Your task to perform on an android device: turn off notifications in google photos Image 0: 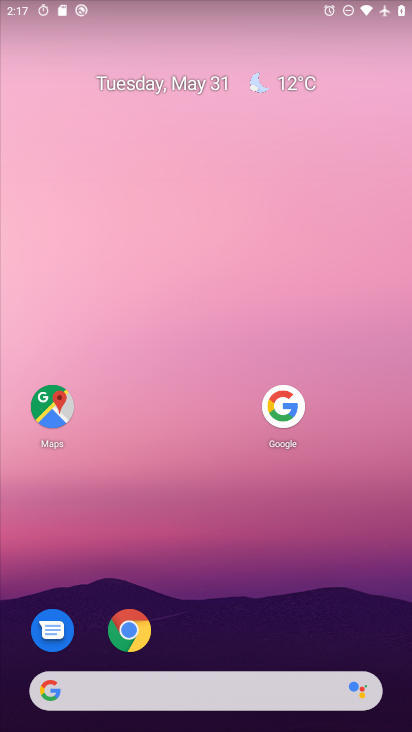
Step 0: press home button
Your task to perform on an android device: turn off notifications in google photos Image 1: 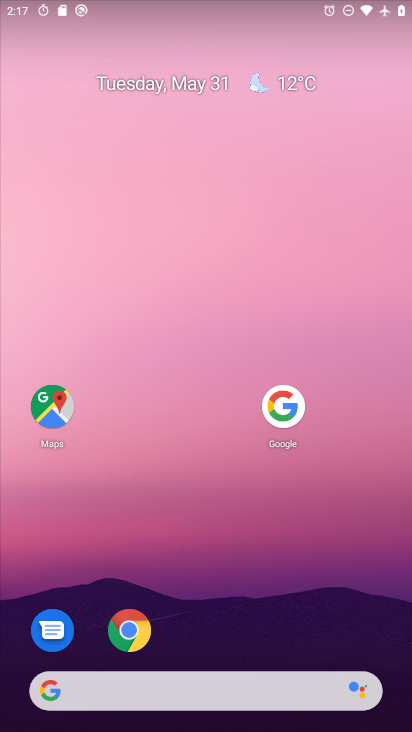
Step 1: drag from (116, 696) to (294, 64)
Your task to perform on an android device: turn off notifications in google photos Image 2: 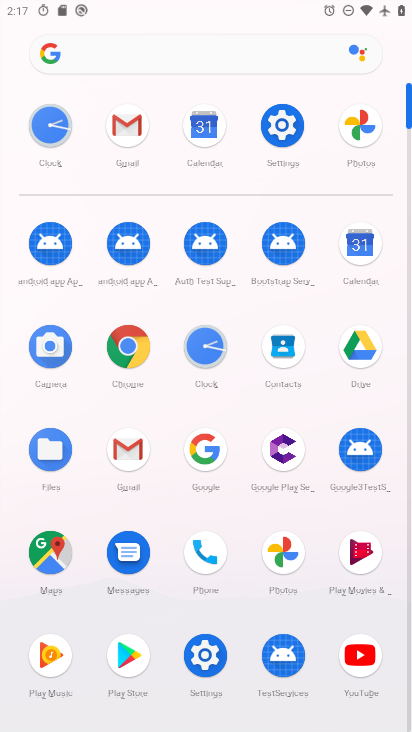
Step 2: click (355, 128)
Your task to perform on an android device: turn off notifications in google photos Image 3: 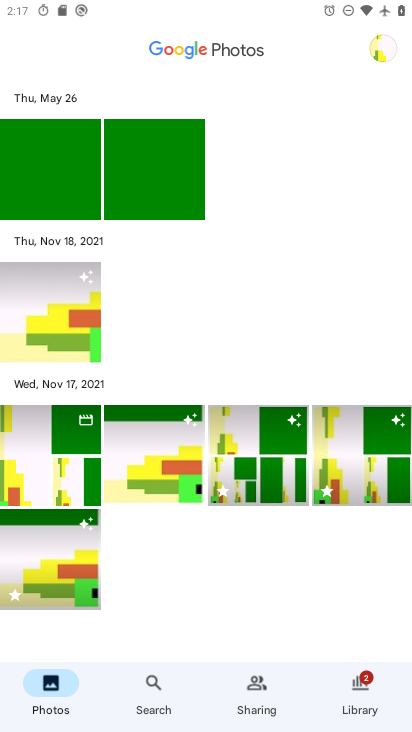
Step 3: click (377, 41)
Your task to perform on an android device: turn off notifications in google photos Image 4: 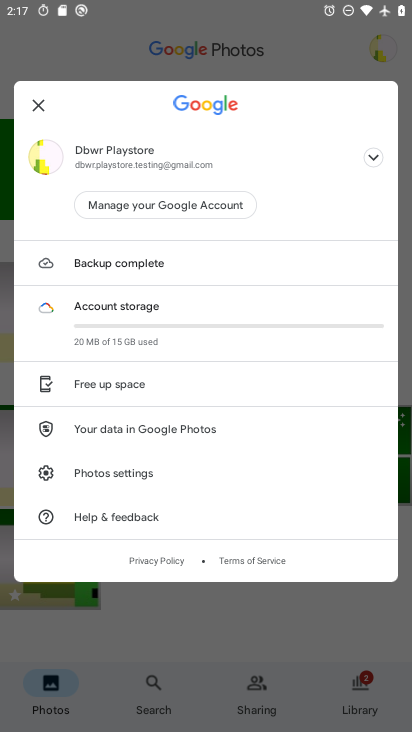
Step 4: click (138, 468)
Your task to perform on an android device: turn off notifications in google photos Image 5: 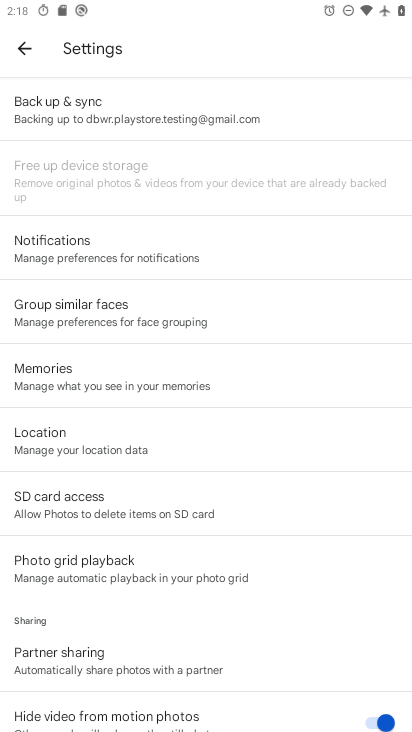
Step 5: click (128, 241)
Your task to perform on an android device: turn off notifications in google photos Image 6: 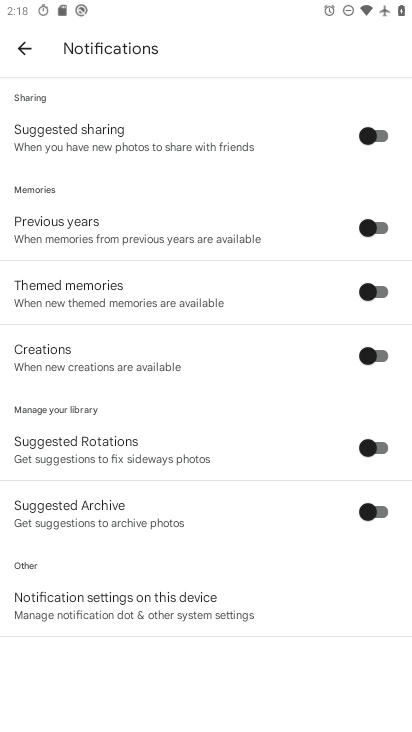
Step 6: click (150, 612)
Your task to perform on an android device: turn off notifications in google photos Image 7: 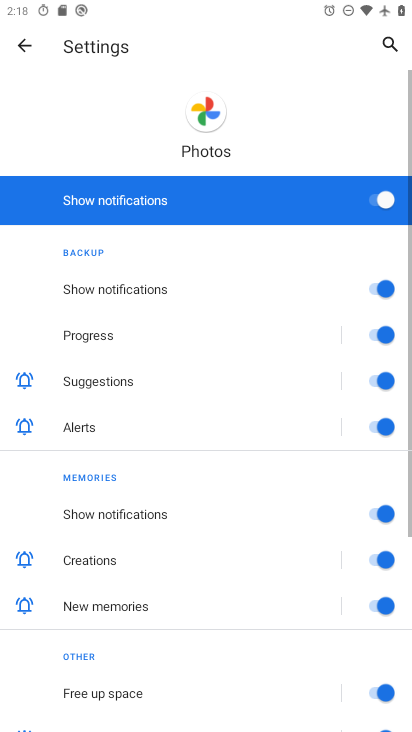
Step 7: click (377, 203)
Your task to perform on an android device: turn off notifications in google photos Image 8: 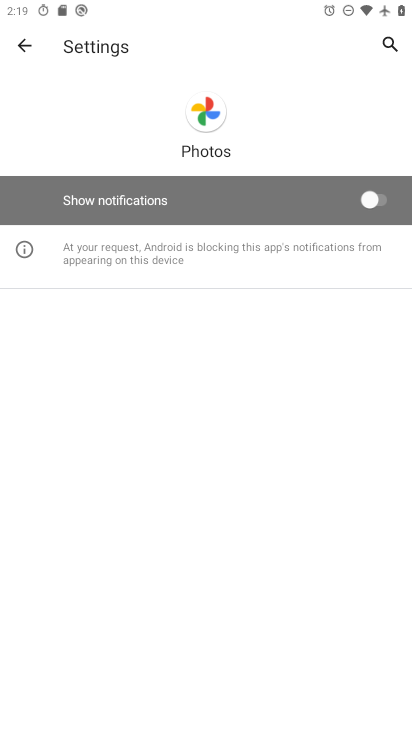
Step 8: task complete